Your task to perform on an android device: change timer sound Image 0: 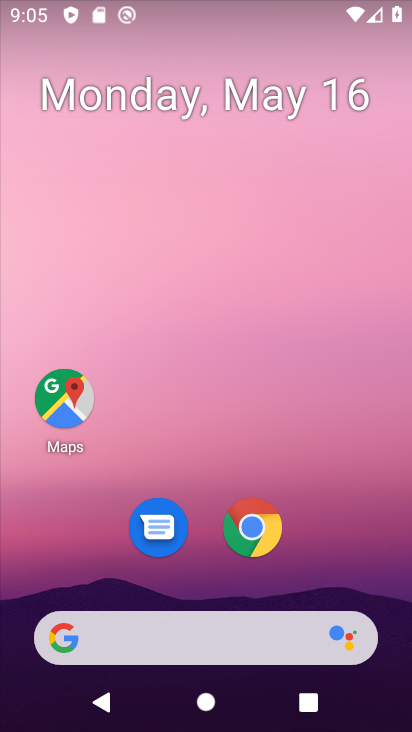
Step 0: drag from (352, 581) to (266, 1)
Your task to perform on an android device: change timer sound Image 1: 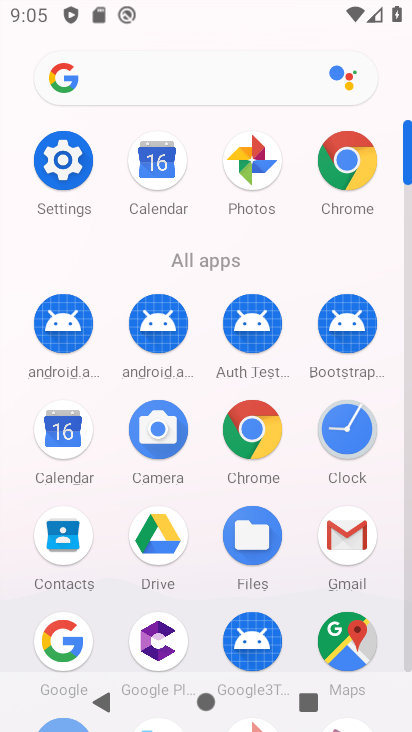
Step 1: click (337, 419)
Your task to perform on an android device: change timer sound Image 2: 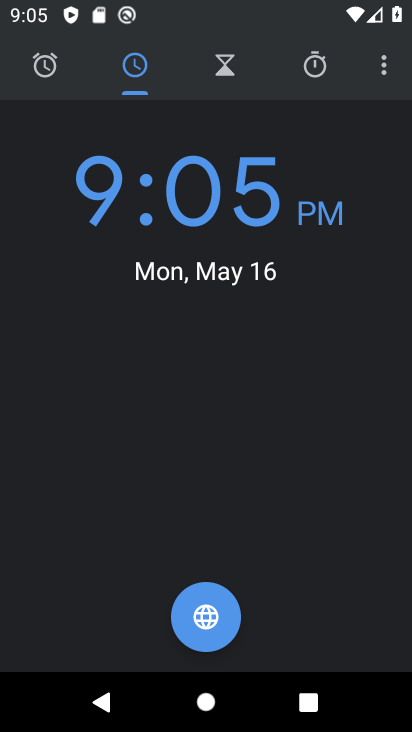
Step 2: click (382, 73)
Your task to perform on an android device: change timer sound Image 3: 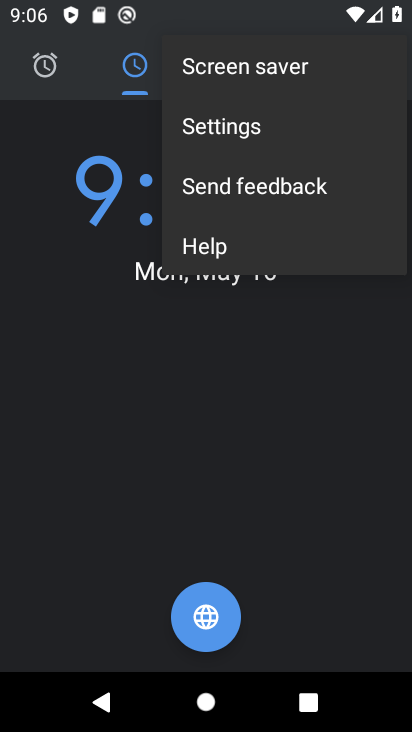
Step 3: click (201, 113)
Your task to perform on an android device: change timer sound Image 4: 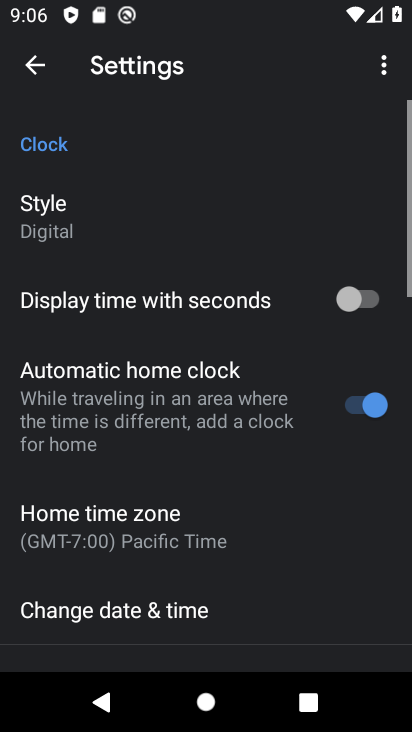
Step 4: drag from (200, 555) to (210, 8)
Your task to perform on an android device: change timer sound Image 5: 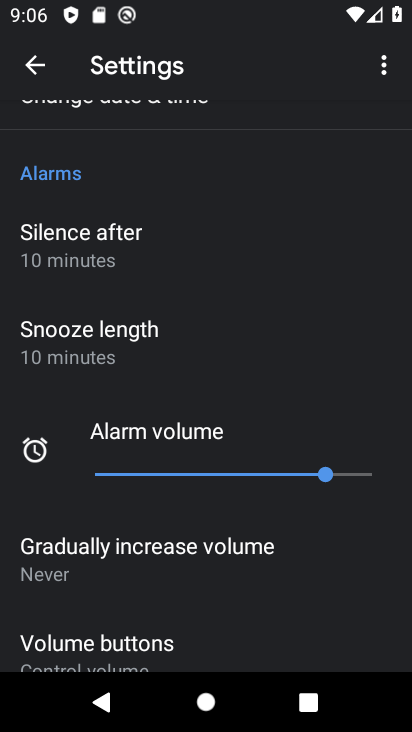
Step 5: drag from (171, 457) to (168, 100)
Your task to perform on an android device: change timer sound Image 6: 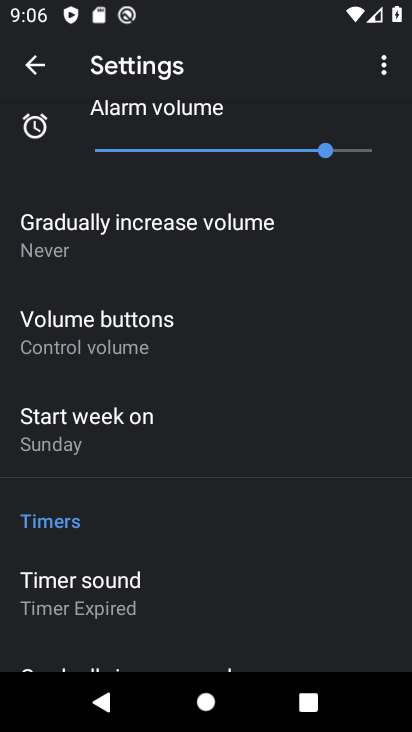
Step 6: drag from (136, 497) to (141, 120)
Your task to perform on an android device: change timer sound Image 7: 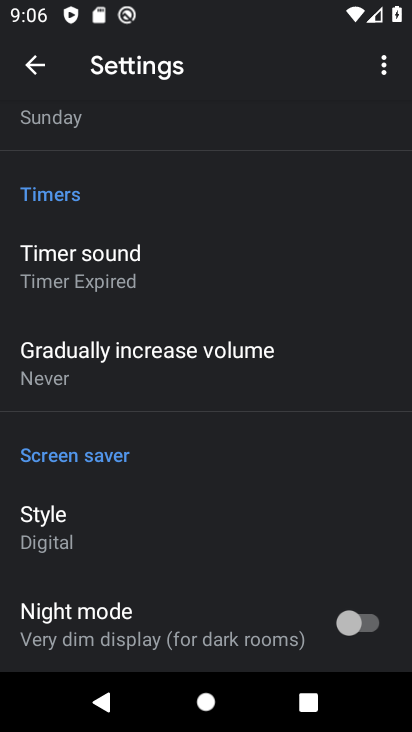
Step 7: click (63, 264)
Your task to perform on an android device: change timer sound Image 8: 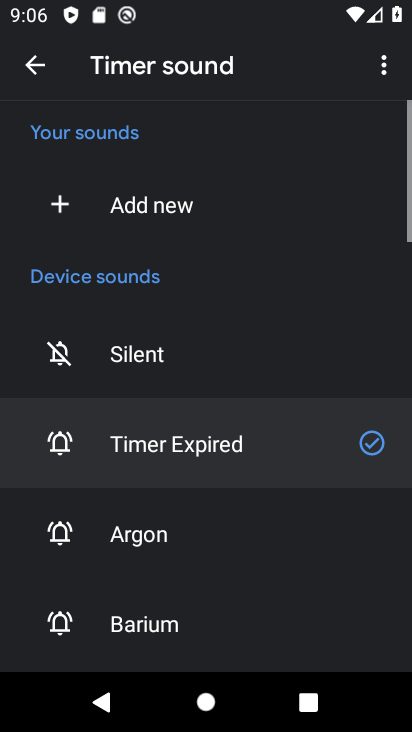
Step 8: click (122, 542)
Your task to perform on an android device: change timer sound Image 9: 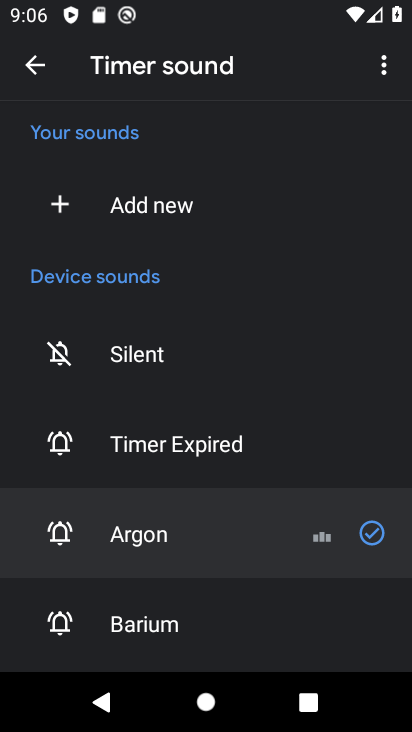
Step 9: task complete